Your task to perform on an android device: all mails in gmail Image 0: 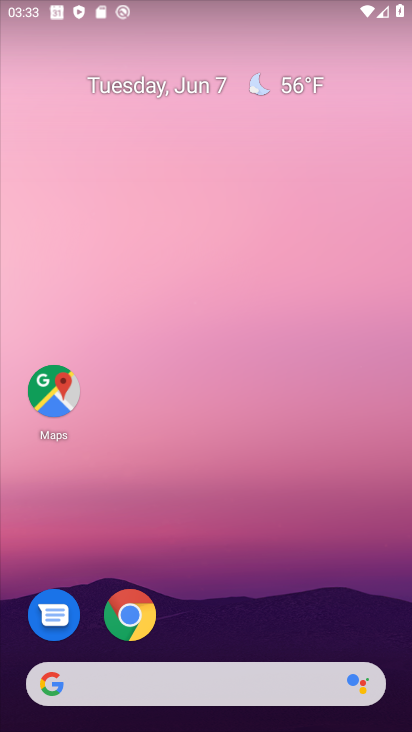
Step 0: drag from (241, 587) to (241, 327)
Your task to perform on an android device: all mails in gmail Image 1: 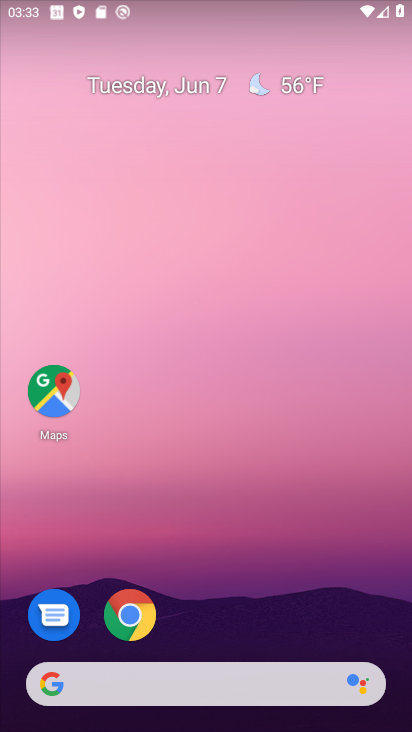
Step 1: drag from (222, 665) to (219, 297)
Your task to perform on an android device: all mails in gmail Image 2: 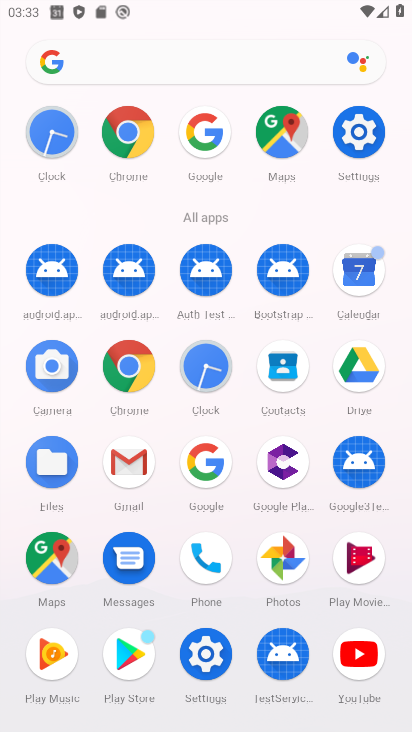
Step 2: click (135, 461)
Your task to perform on an android device: all mails in gmail Image 3: 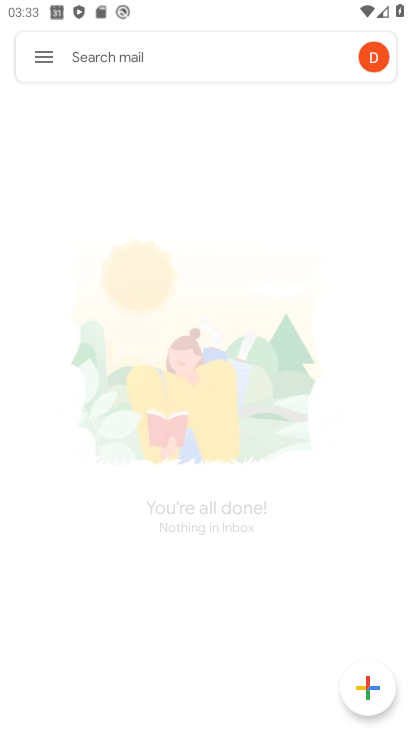
Step 3: click (43, 59)
Your task to perform on an android device: all mails in gmail Image 4: 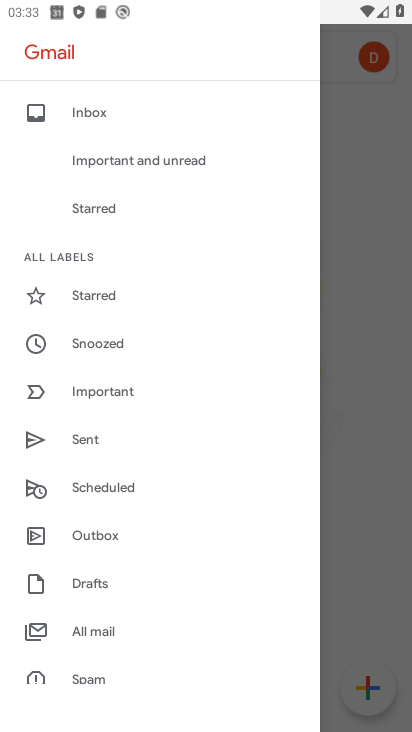
Step 4: drag from (84, 671) to (89, 311)
Your task to perform on an android device: all mails in gmail Image 5: 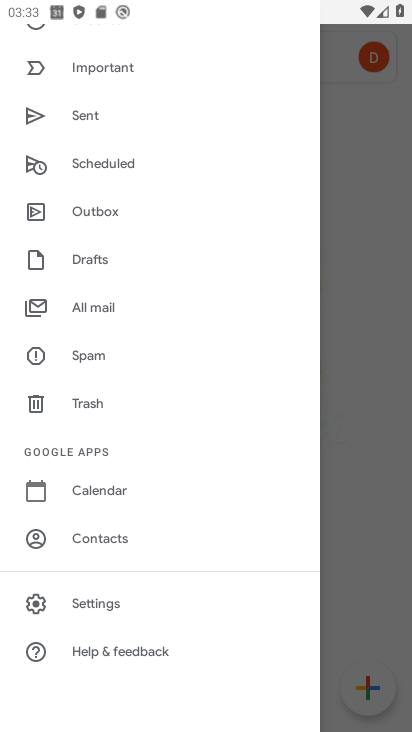
Step 5: click (102, 331)
Your task to perform on an android device: all mails in gmail Image 6: 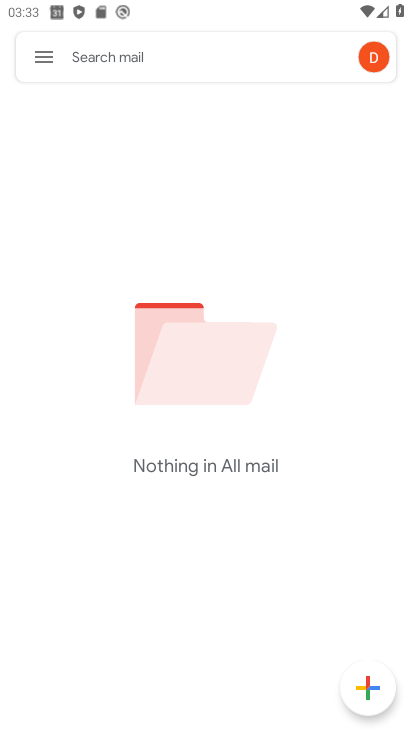
Step 6: task complete